Your task to perform on an android device: Search for vegetarian restaurants on Maps Image 0: 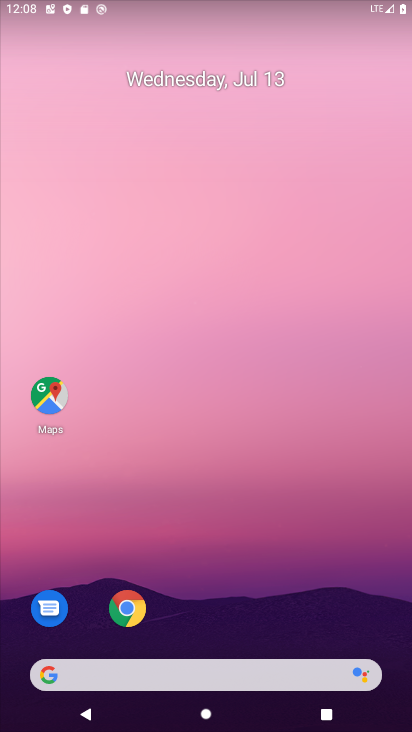
Step 0: click (39, 401)
Your task to perform on an android device: Search for vegetarian restaurants on Maps Image 1: 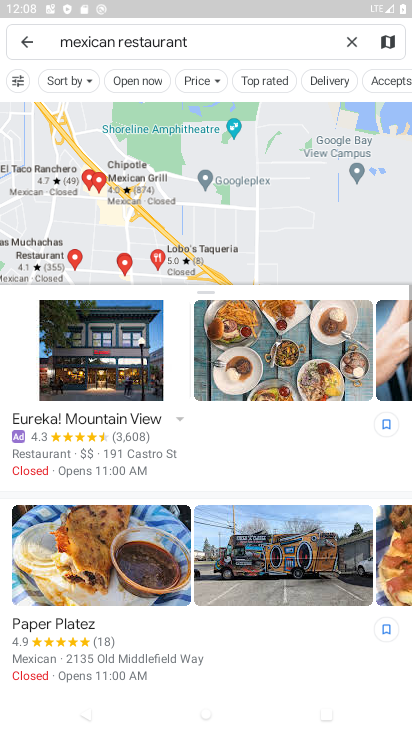
Step 1: click (350, 41)
Your task to perform on an android device: Search for vegetarian restaurants on Maps Image 2: 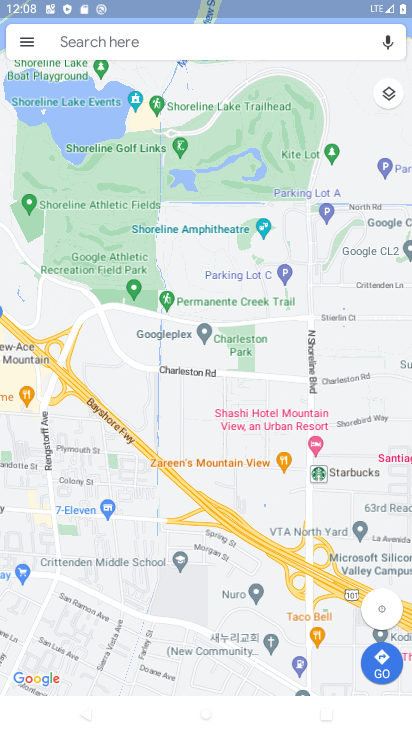
Step 2: click (132, 32)
Your task to perform on an android device: Search for vegetarian restaurants on Maps Image 3: 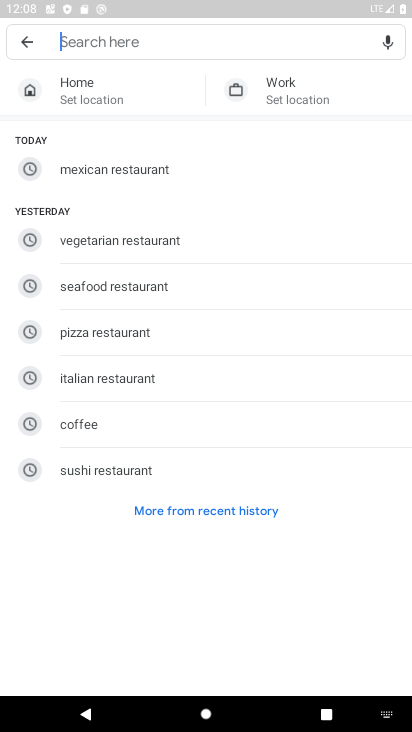
Step 3: click (66, 244)
Your task to perform on an android device: Search for vegetarian restaurants on Maps Image 4: 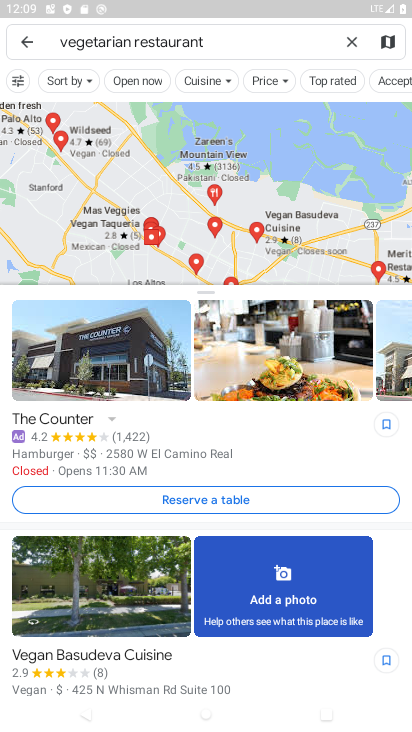
Step 4: task complete